Your task to perform on an android device: search for starred emails in the gmail app Image 0: 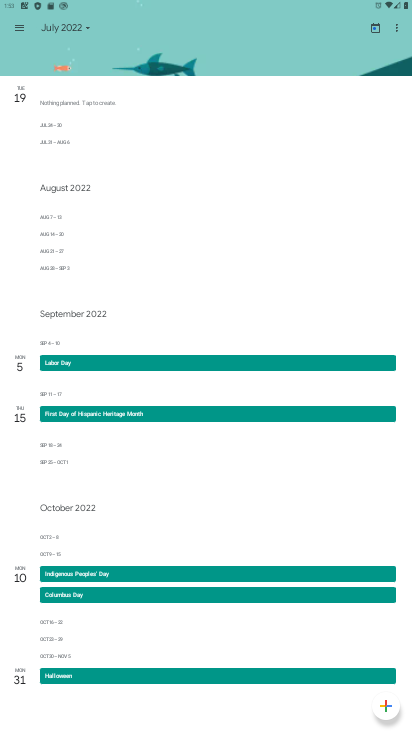
Step 0: press home button
Your task to perform on an android device: search for starred emails in the gmail app Image 1: 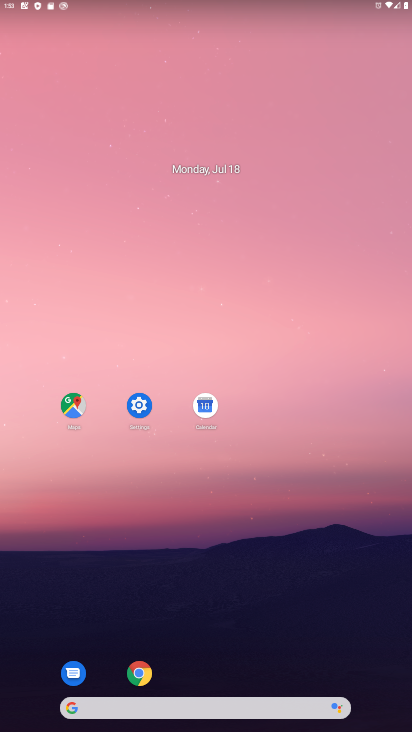
Step 1: drag from (393, 713) to (339, 79)
Your task to perform on an android device: search for starred emails in the gmail app Image 2: 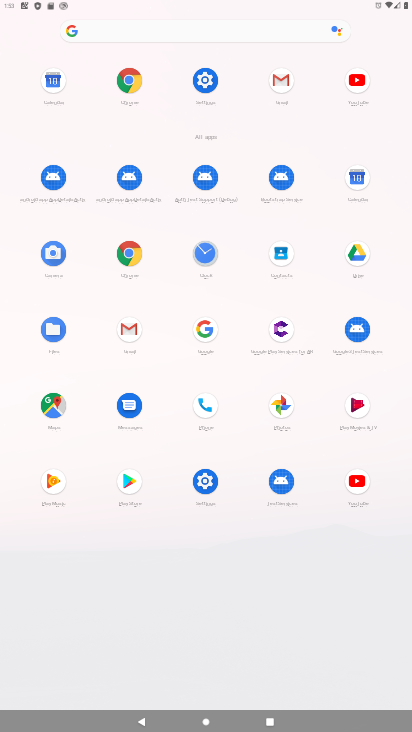
Step 2: drag from (137, 334) to (268, 341)
Your task to perform on an android device: search for starred emails in the gmail app Image 3: 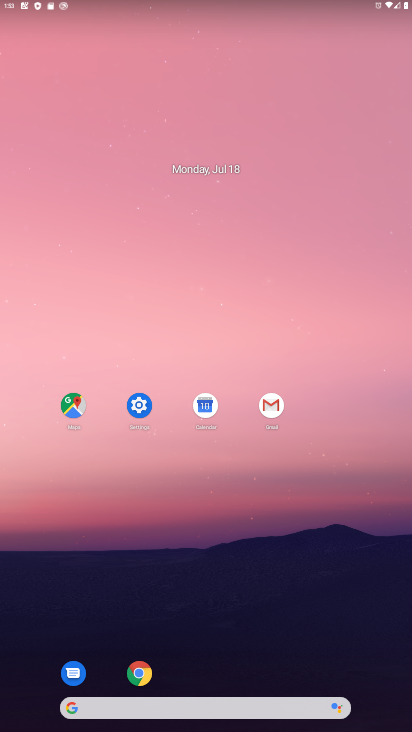
Step 3: click (268, 404)
Your task to perform on an android device: search for starred emails in the gmail app Image 4: 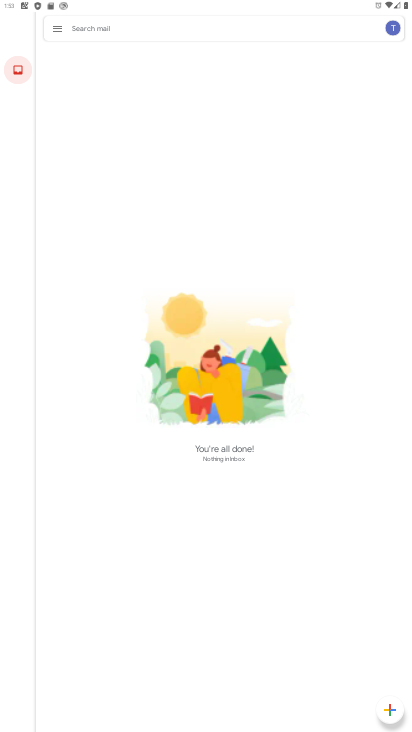
Step 4: click (60, 29)
Your task to perform on an android device: search for starred emails in the gmail app Image 5: 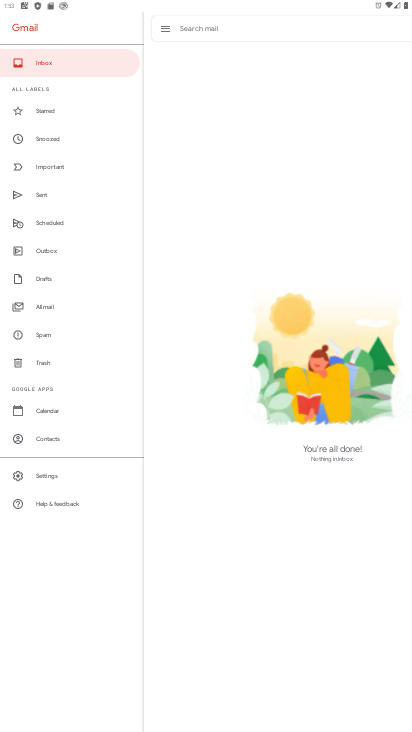
Step 5: click (47, 137)
Your task to perform on an android device: search for starred emails in the gmail app Image 6: 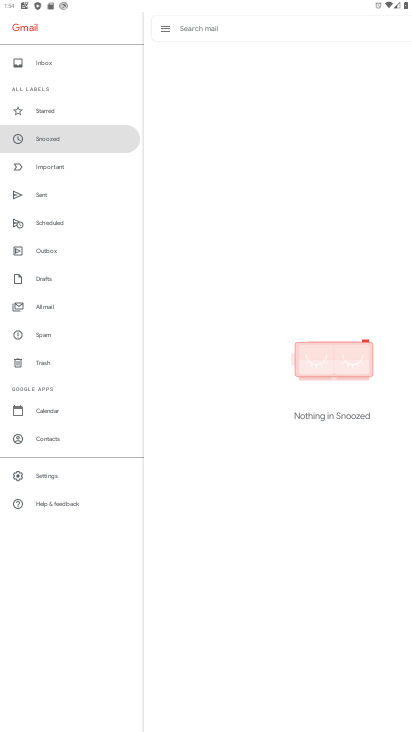
Step 6: task complete